Your task to perform on an android device: turn on data saver in the chrome app Image 0: 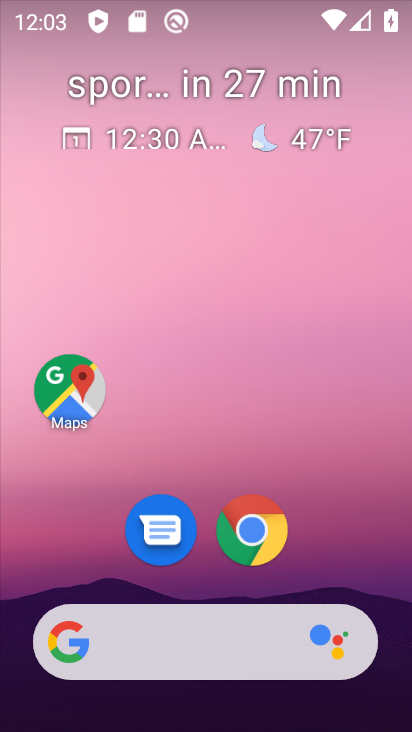
Step 0: drag from (350, 501) to (324, 170)
Your task to perform on an android device: turn on data saver in the chrome app Image 1: 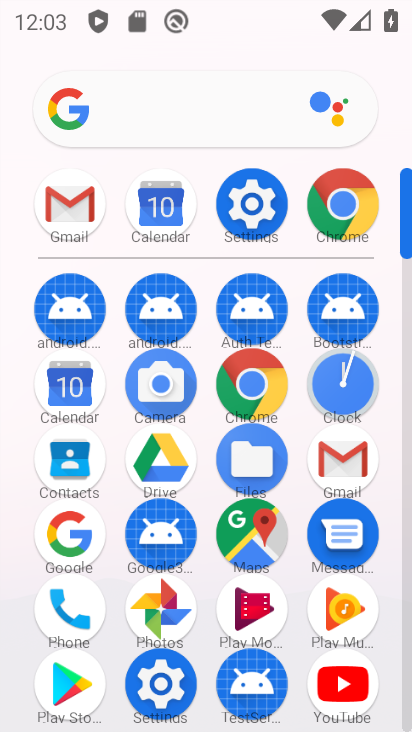
Step 1: click (275, 377)
Your task to perform on an android device: turn on data saver in the chrome app Image 2: 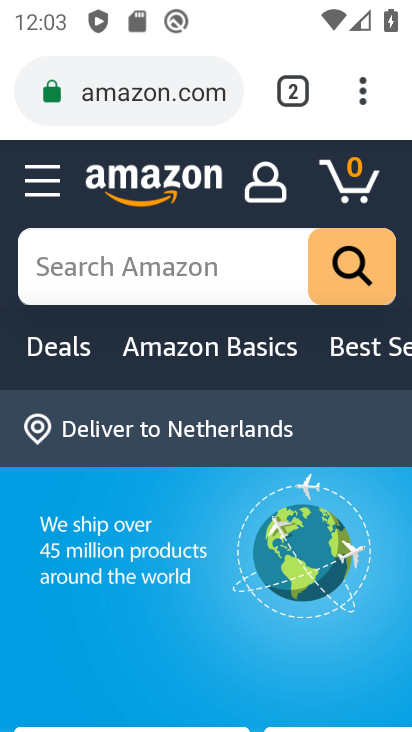
Step 2: drag from (363, 112) to (142, 548)
Your task to perform on an android device: turn on data saver in the chrome app Image 3: 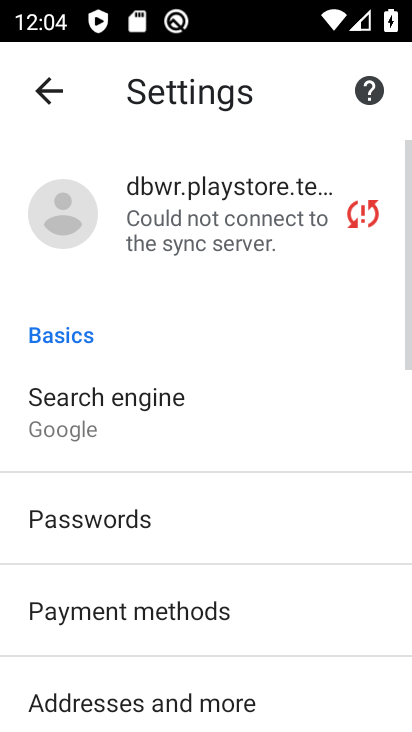
Step 3: drag from (312, 698) to (260, 264)
Your task to perform on an android device: turn on data saver in the chrome app Image 4: 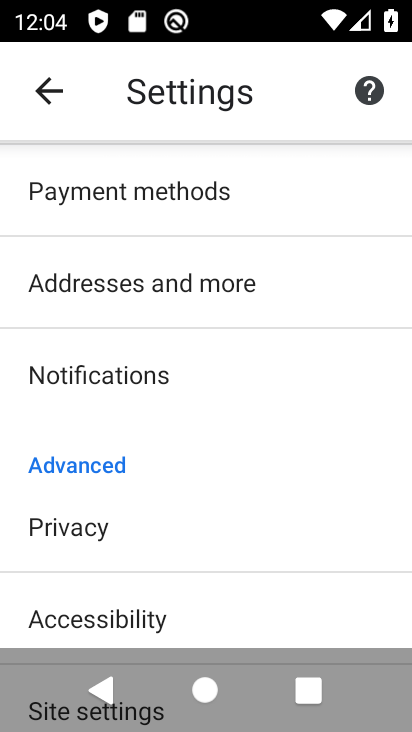
Step 4: drag from (289, 617) to (273, 262)
Your task to perform on an android device: turn on data saver in the chrome app Image 5: 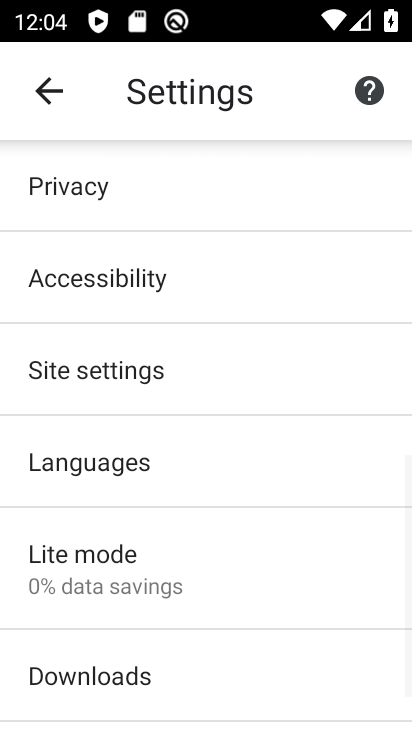
Step 5: drag from (292, 561) to (281, 266)
Your task to perform on an android device: turn on data saver in the chrome app Image 6: 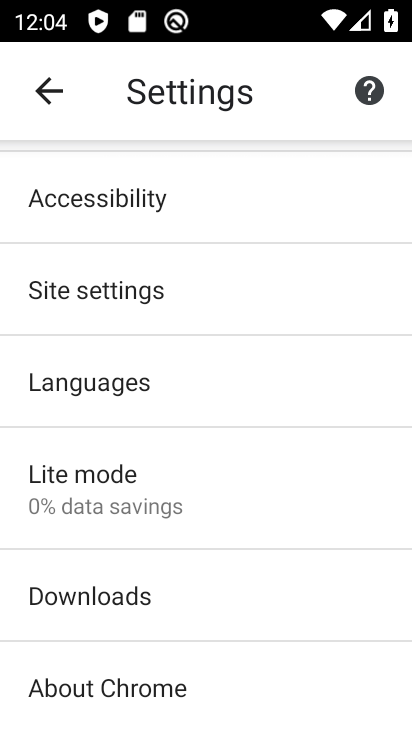
Step 6: click (189, 494)
Your task to perform on an android device: turn on data saver in the chrome app Image 7: 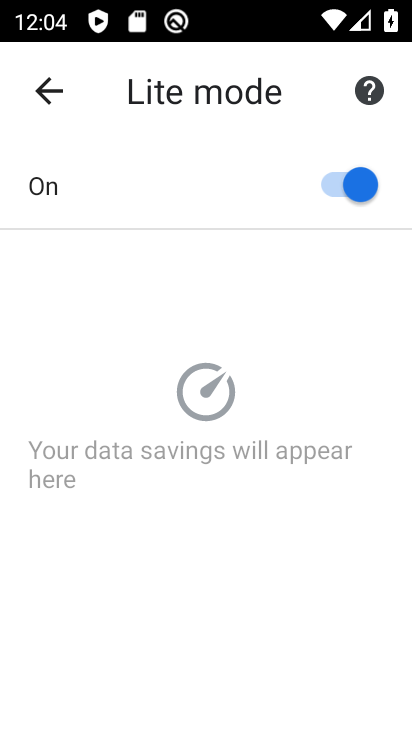
Step 7: task complete